Your task to perform on an android device: Go to Wikipedia Image 0: 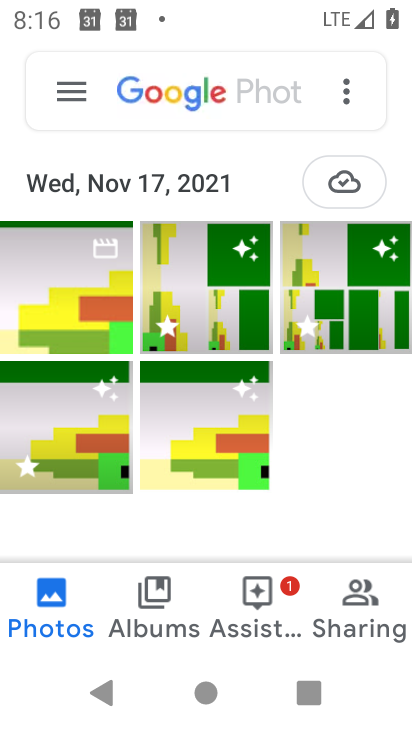
Step 0: press home button
Your task to perform on an android device: Go to Wikipedia Image 1: 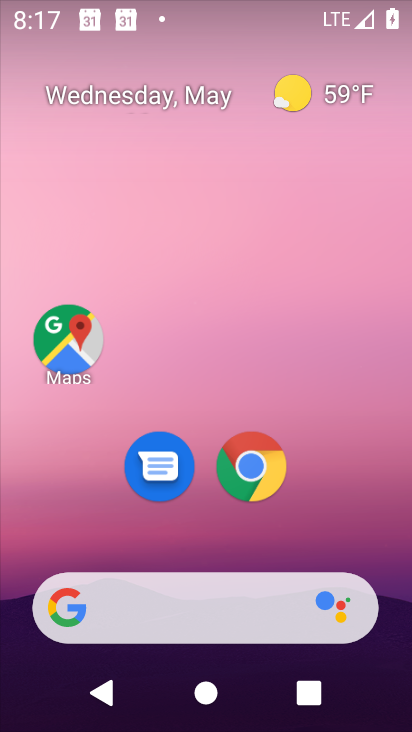
Step 1: click (249, 456)
Your task to perform on an android device: Go to Wikipedia Image 2: 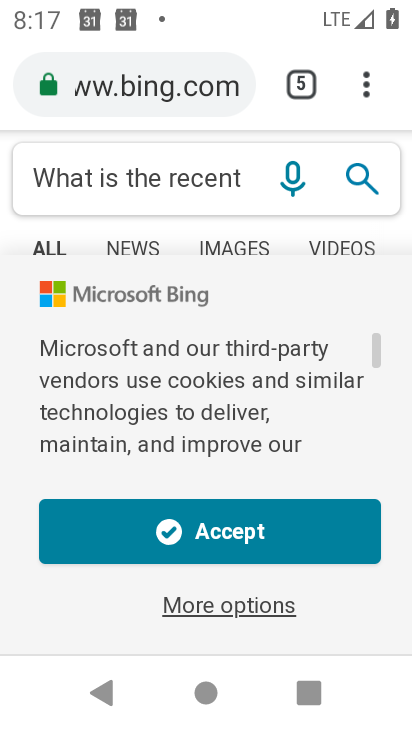
Step 2: click (352, 81)
Your task to perform on an android device: Go to Wikipedia Image 3: 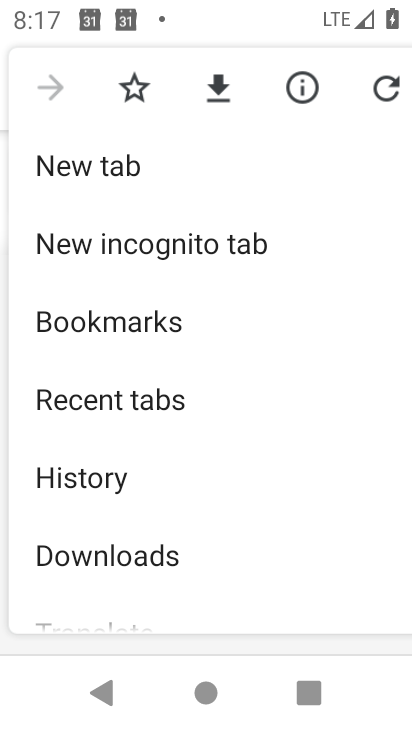
Step 3: click (127, 160)
Your task to perform on an android device: Go to Wikipedia Image 4: 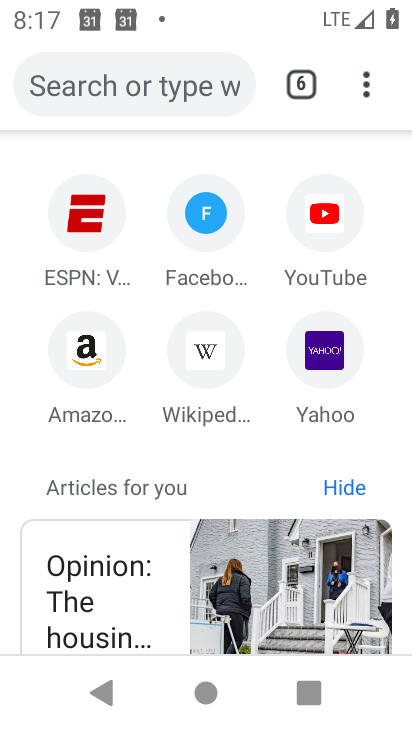
Step 4: click (200, 343)
Your task to perform on an android device: Go to Wikipedia Image 5: 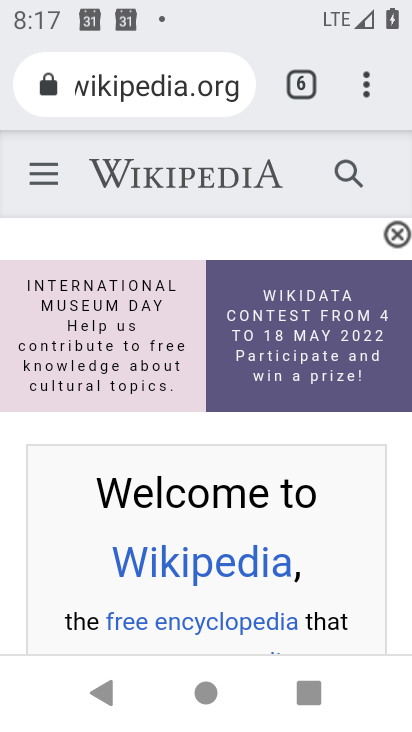
Step 5: task complete